Your task to perform on an android device: Check the news Image 0: 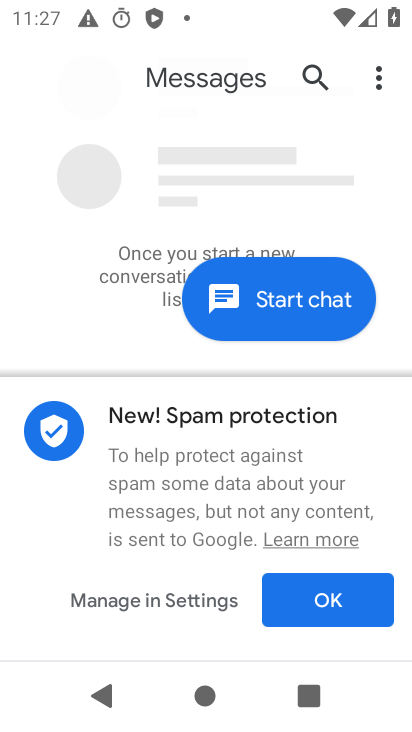
Step 0: press home button
Your task to perform on an android device: Check the news Image 1: 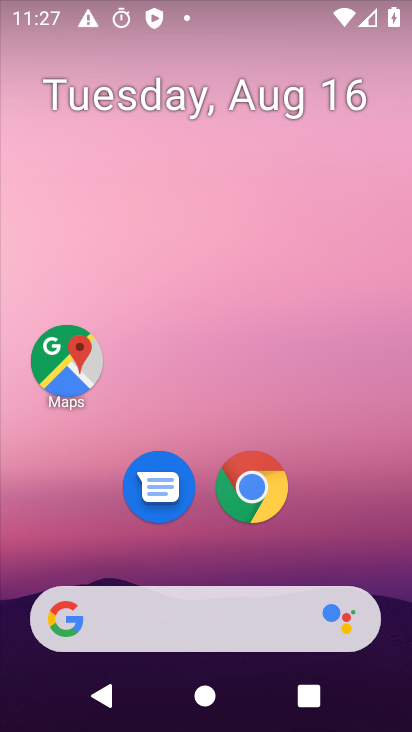
Step 1: task complete